Your task to perform on an android device: Open my contact list Image 0: 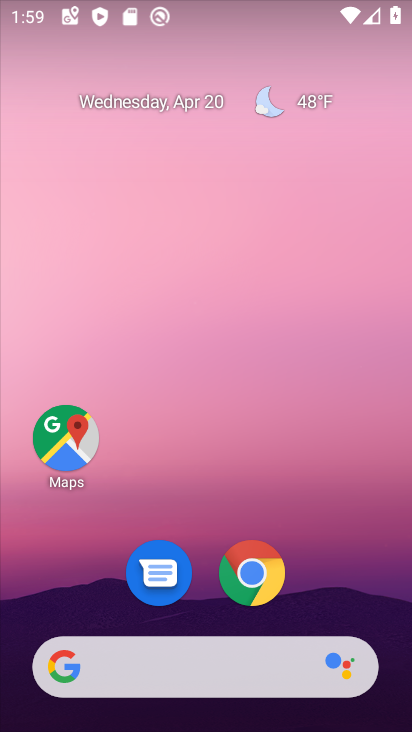
Step 0: drag from (182, 678) to (319, 123)
Your task to perform on an android device: Open my contact list Image 1: 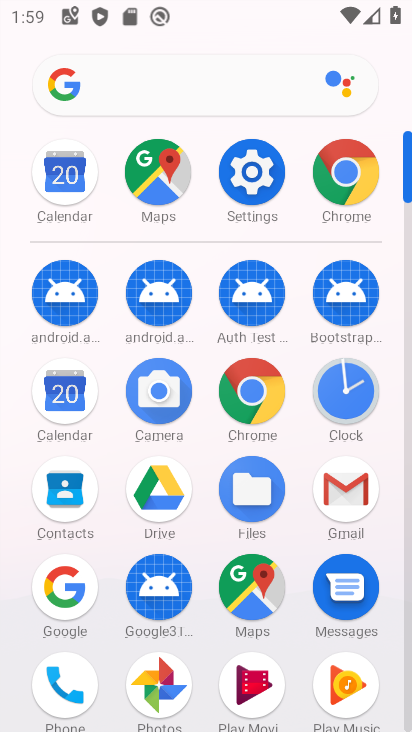
Step 1: click (69, 497)
Your task to perform on an android device: Open my contact list Image 2: 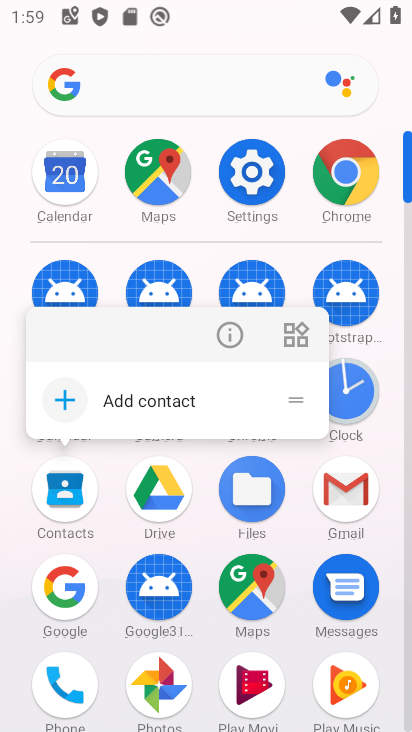
Step 2: click (69, 495)
Your task to perform on an android device: Open my contact list Image 3: 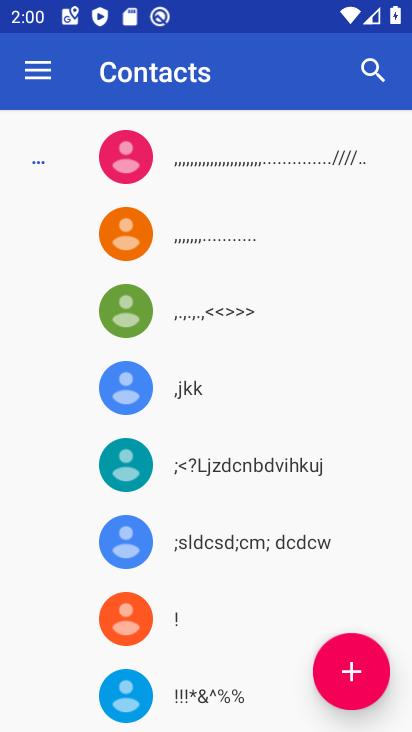
Step 3: task complete